Your task to perform on an android device: Open Android settings Image 0: 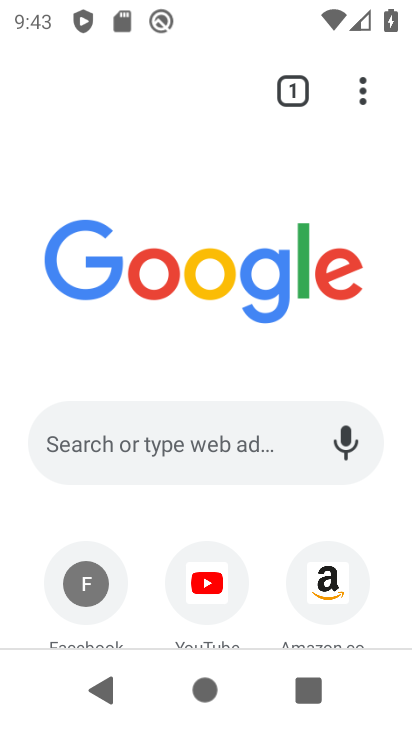
Step 0: press home button
Your task to perform on an android device: Open Android settings Image 1: 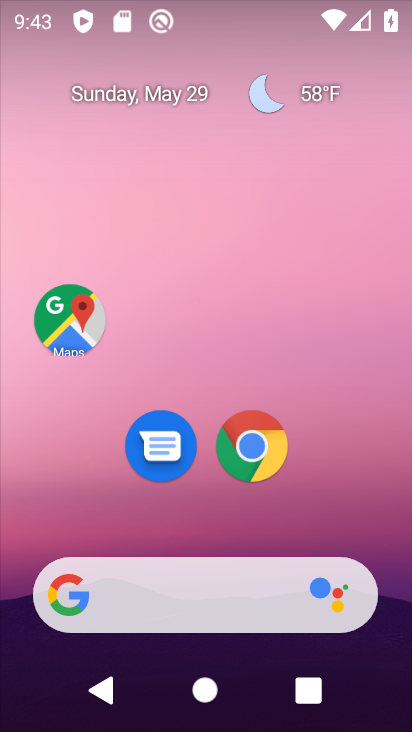
Step 1: drag from (215, 292) to (246, 138)
Your task to perform on an android device: Open Android settings Image 2: 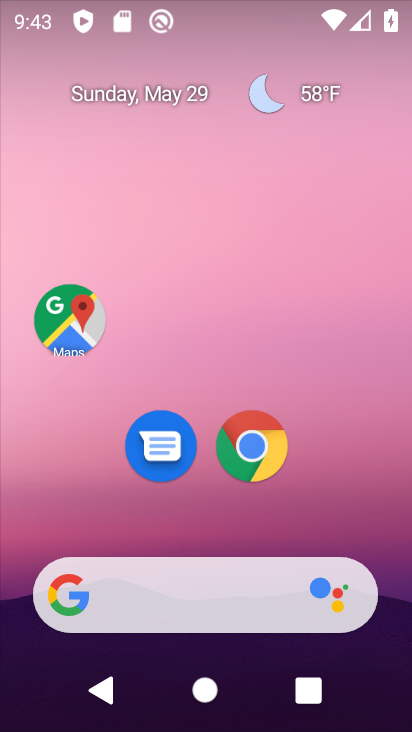
Step 2: drag from (220, 548) to (280, 77)
Your task to perform on an android device: Open Android settings Image 3: 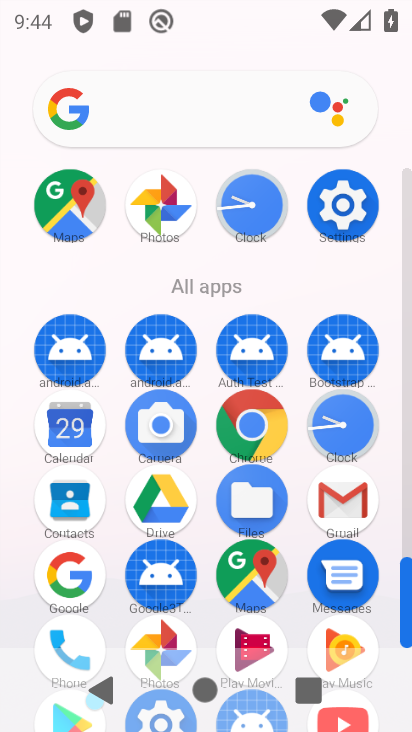
Step 3: click (342, 213)
Your task to perform on an android device: Open Android settings Image 4: 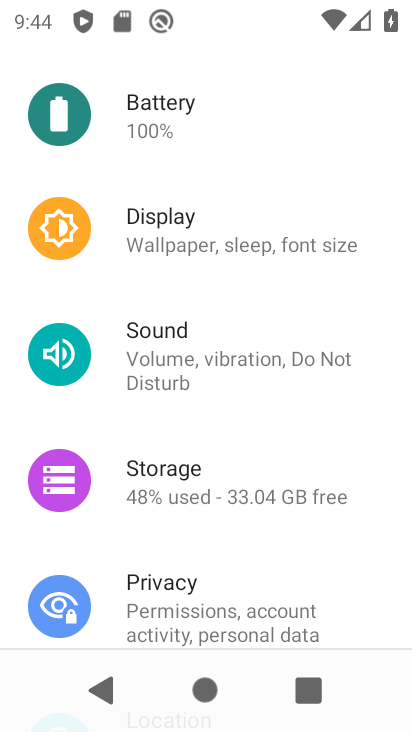
Step 4: task complete